Your task to perform on an android device: Search for sushi restaurants on Maps Image 0: 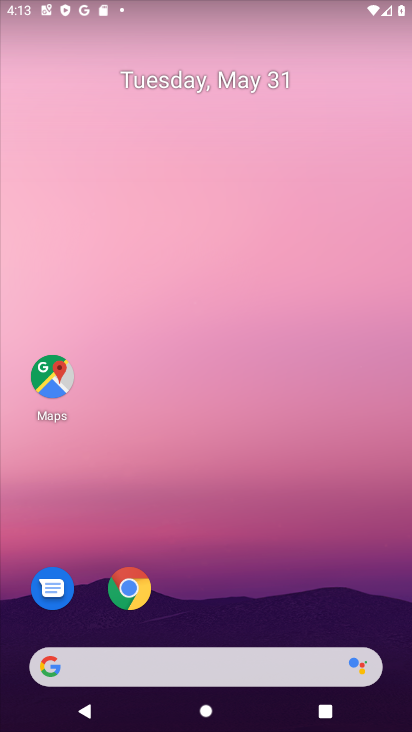
Step 0: click (44, 375)
Your task to perform on an android device: Search for sushi restaurants on Maps Image 1: 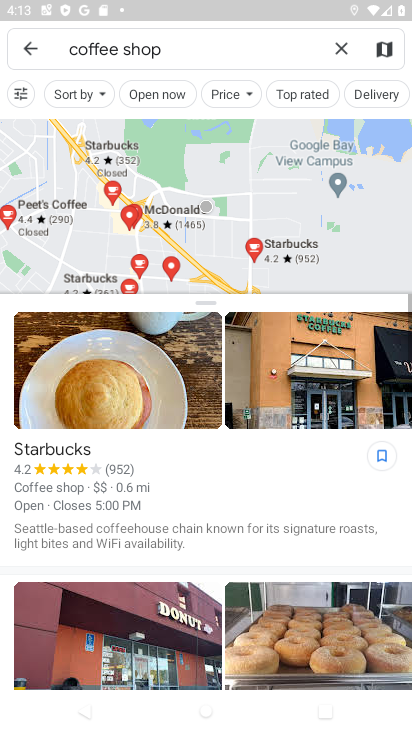
Step 1: click (346, 49)
Your task to perform on an android device: Search for sushi restaurants on Maps Image 2: 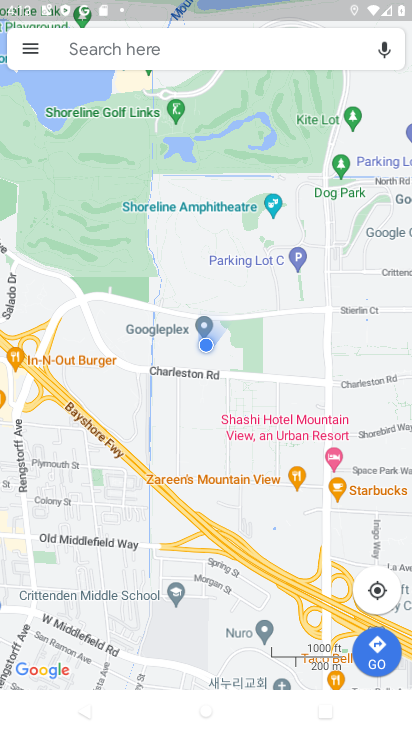
Step 2: click (227, 61)
Your task to perform on an android device: Search for sushi restaurants on Maps Image 3: 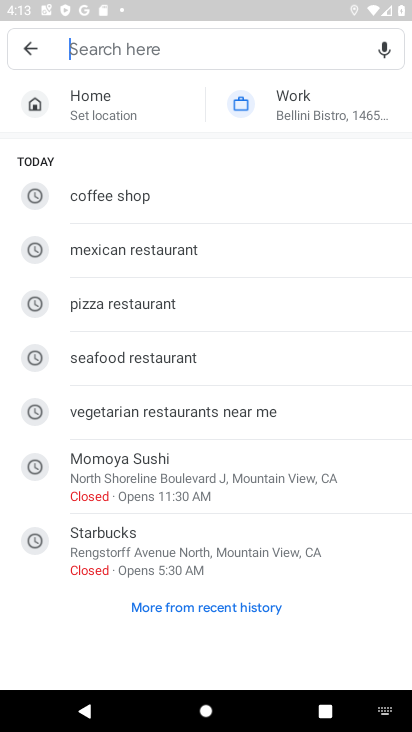
Step 3: type "sushi"
Your task to perform on an android device: Search for sushi restaurants on Maps Image 4: 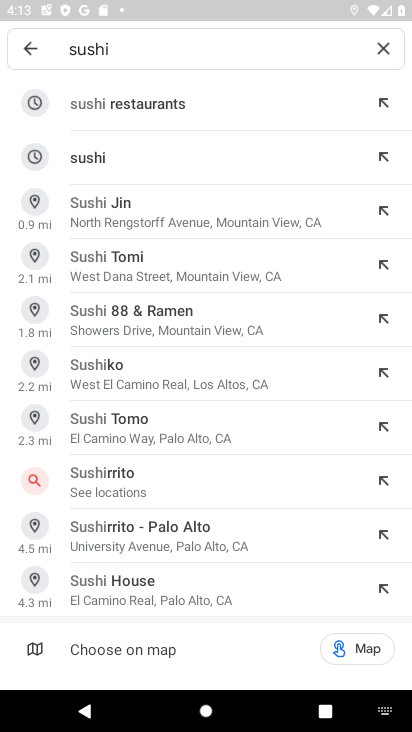
Step 4: click (227, 114)
Your task to perform on an android device: Search for sushi restaurants on Maps Image 5: 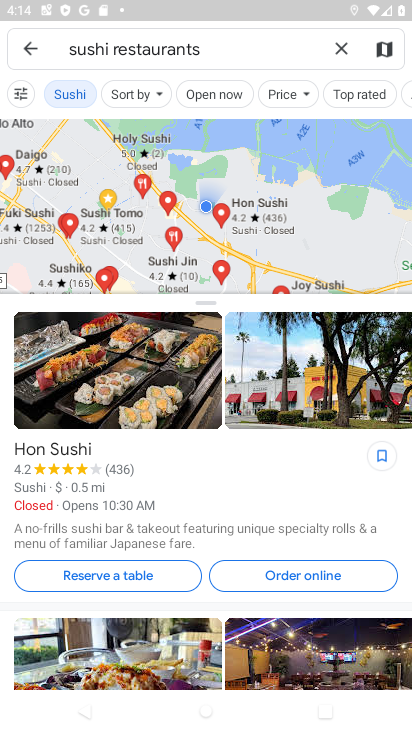
Step 5: task complete